Your task to perform on an android device: Open Yahoo.com Image 0: 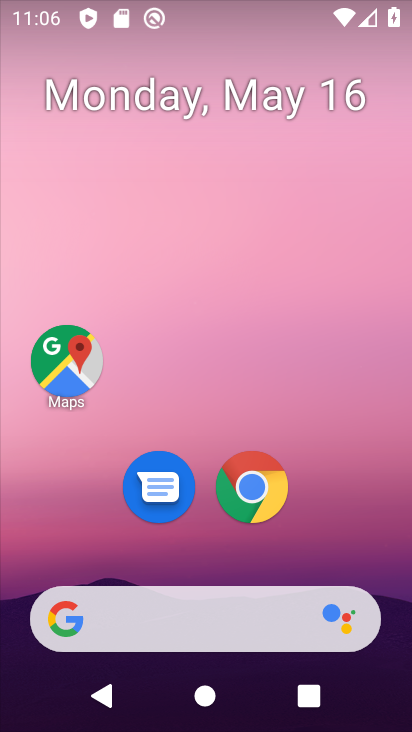
Step 0: click (237, 496)
Your task to perform on an android device: Open Yahoo.com Image 1: 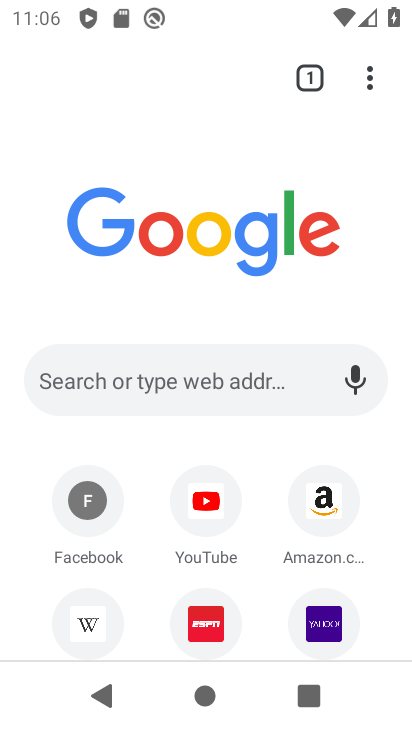
Step 1: drag from (81, 609) to (190, 317)
Your task to perform on an android device: Open Yahoo.com Image 2: 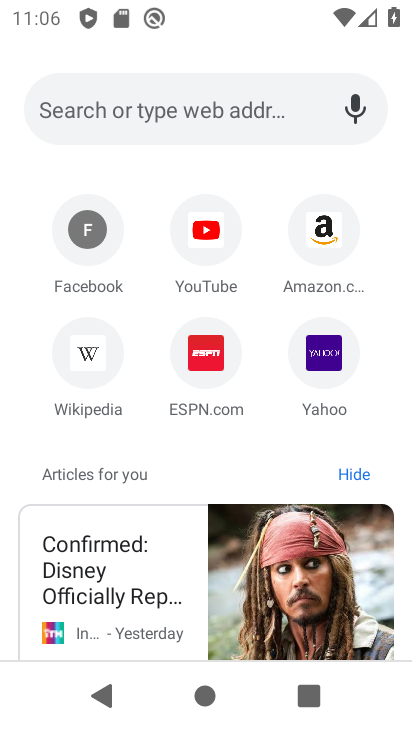
Step 2: click (324, 363)
Your task to perform on an android device: Open Yahoo.com Image 3: 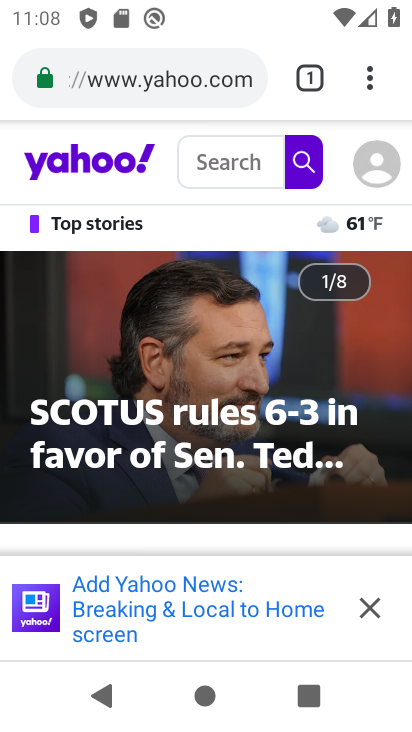
Step 3: task complete